Your task to perform on an android device: turn on sleep mode Image 0: 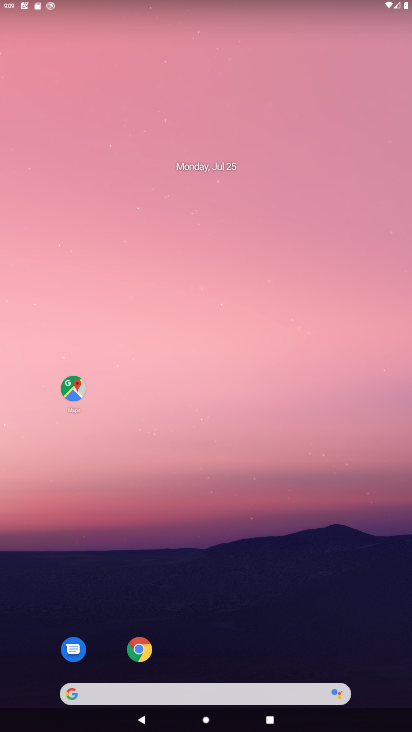
Step 0: drag from (208, 658) to (119, 132)
Your task to perform on an android device: turn on sleep mode Image 1: 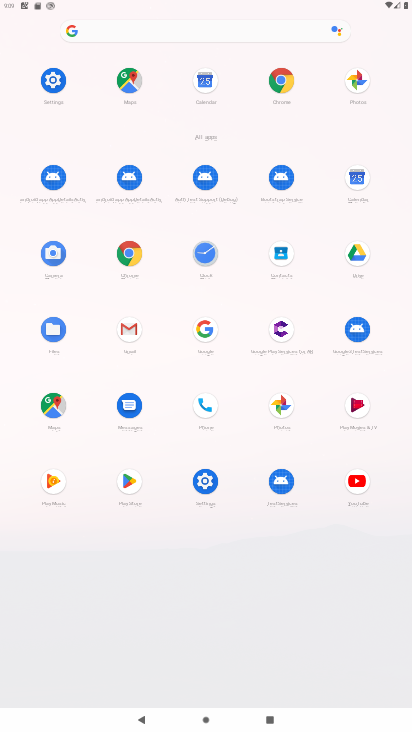
Step 1: click (198, 476)
Your task to perform on an android device: turn on sleep mode Image 2: 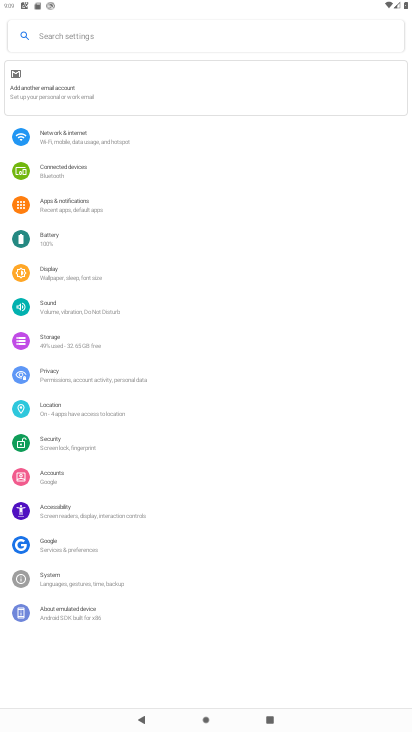
Step 2: click (42, 260)
Your task to perform on an android device: turn on sleep mode Image 3: 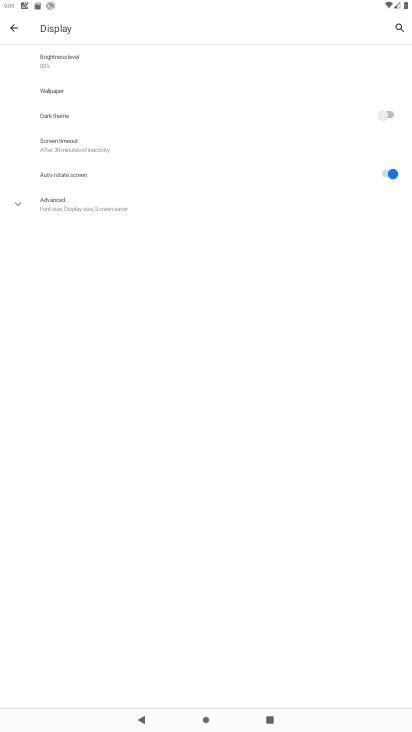
Step 3: click (43, 211)
Your task to perform on an android device: turn on sleep mode Image 4: 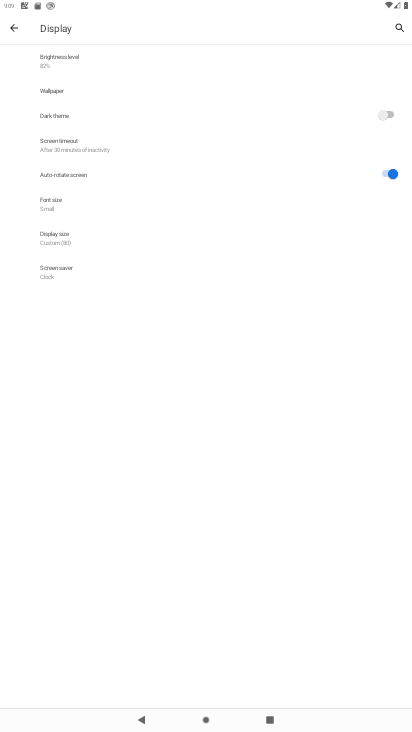
Step 4: task complete